Your task to perform on an android device: check data usage Image 0: 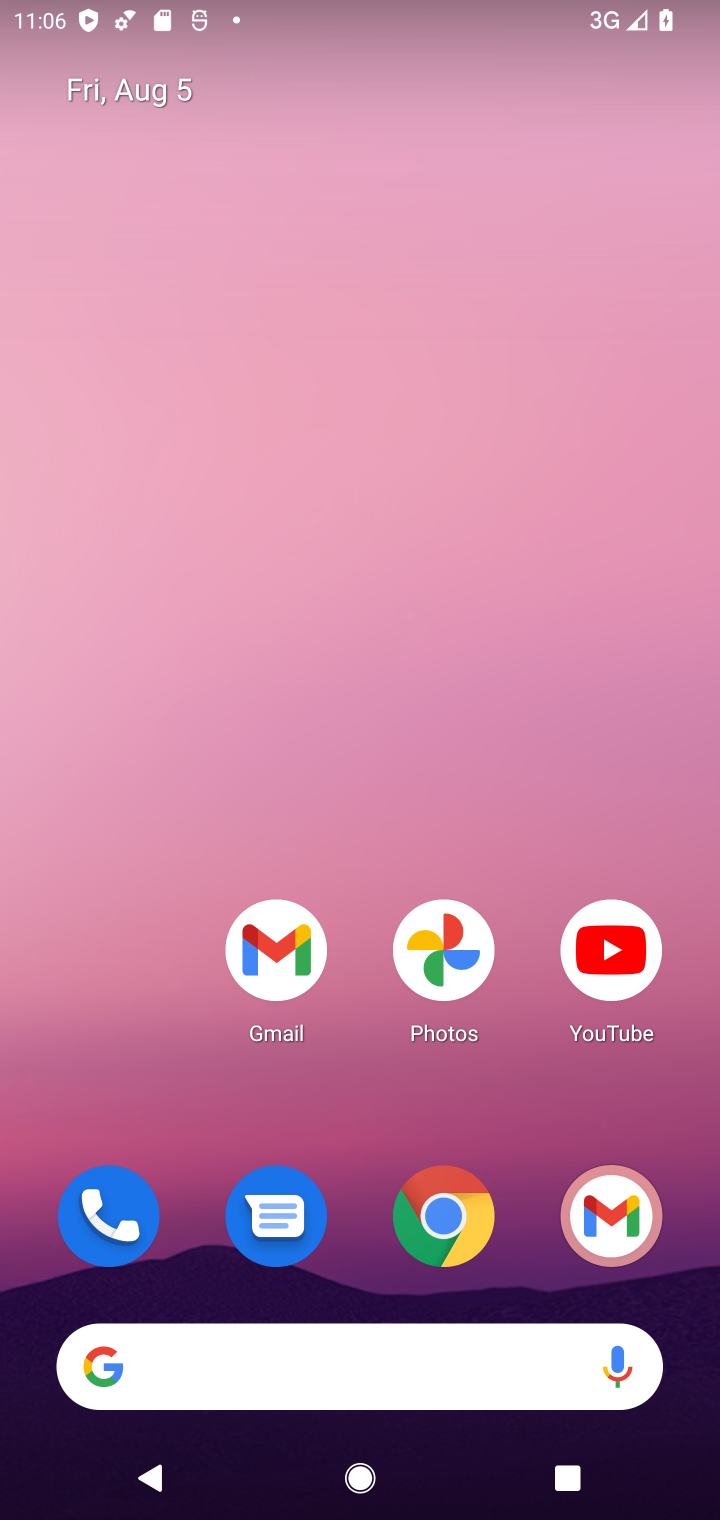
Step 0: drag from (377, 1334) to (267, 118)
Your task to perform on an android device: check data usage Image 1: 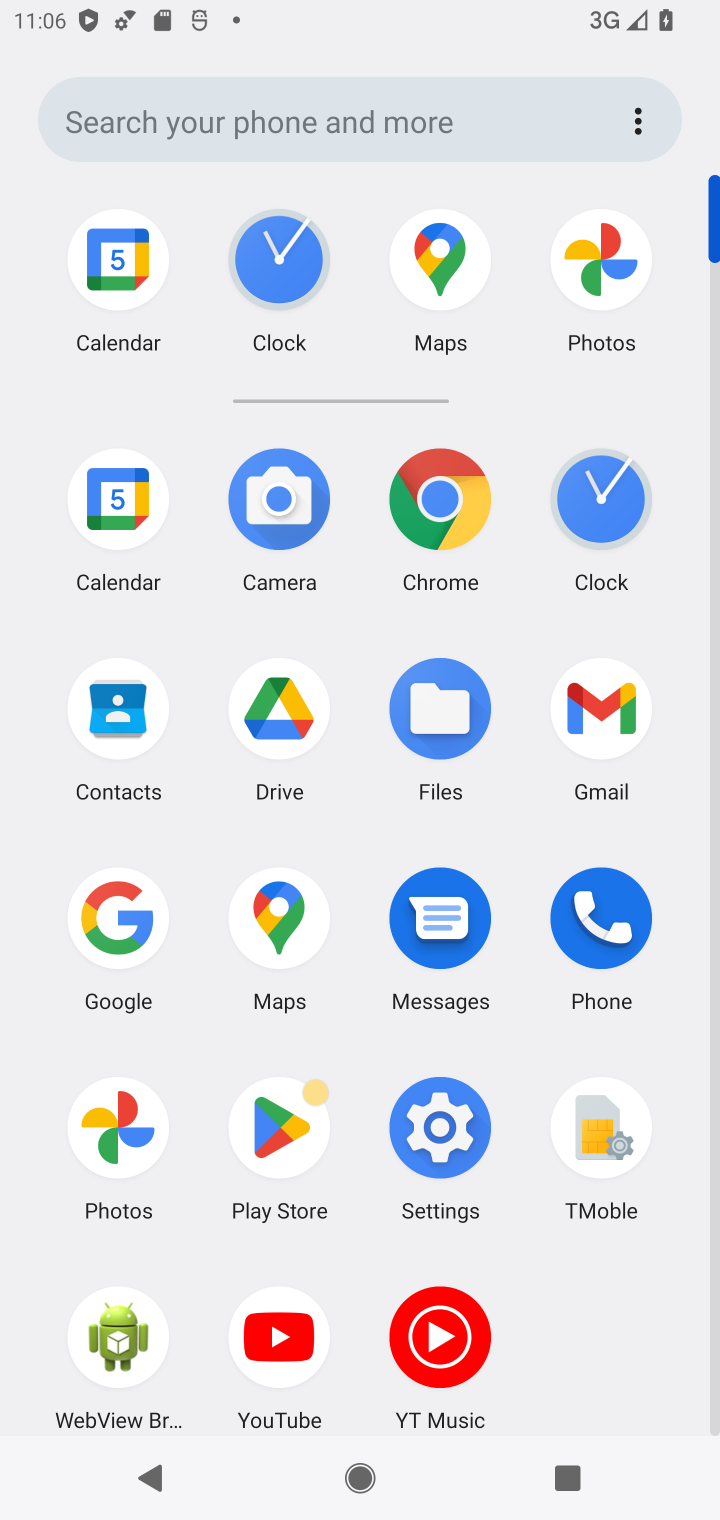
Step 1: click (432, 1140)
Your task to perform on an android device: check data usage Image 2: 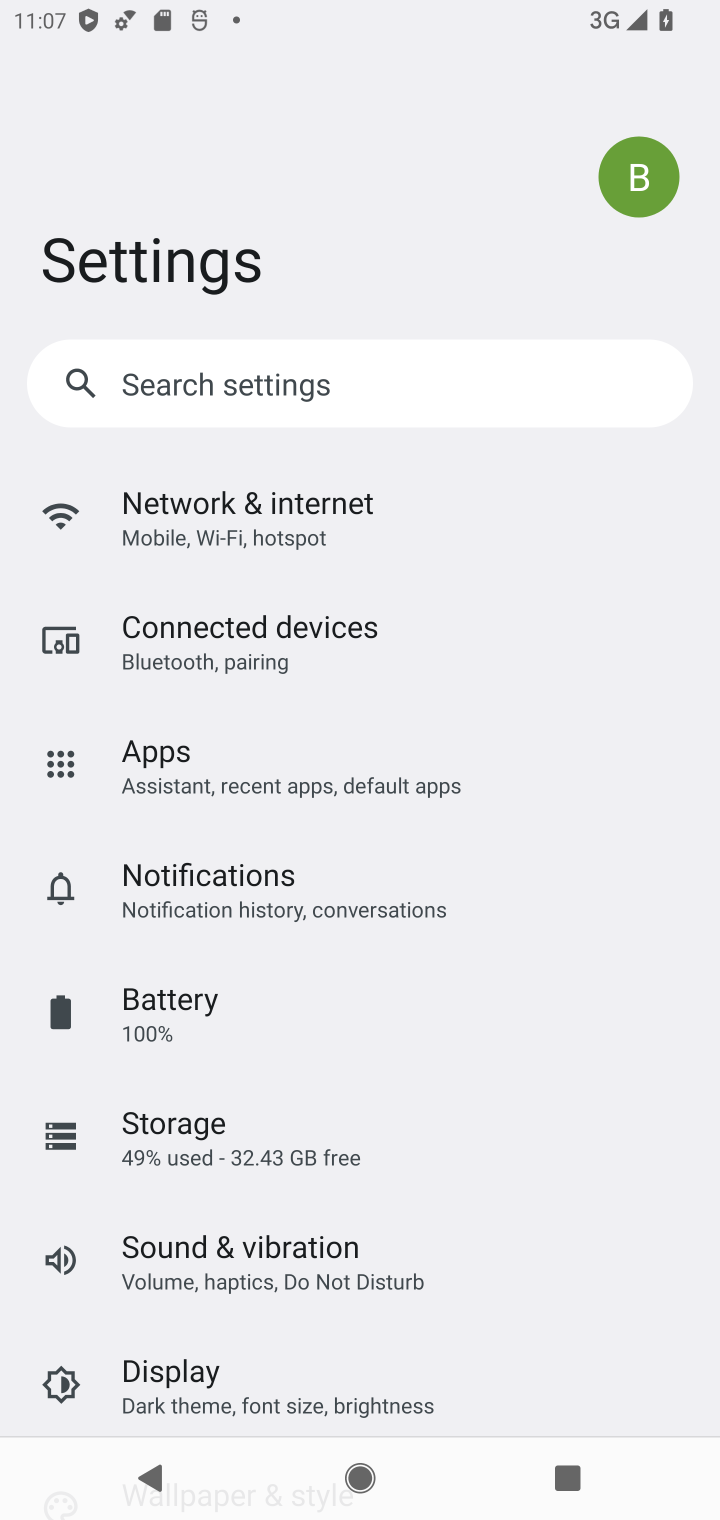
Step 2: click (264, 523)
Your task to perform on an android device: check data usage Image 3: 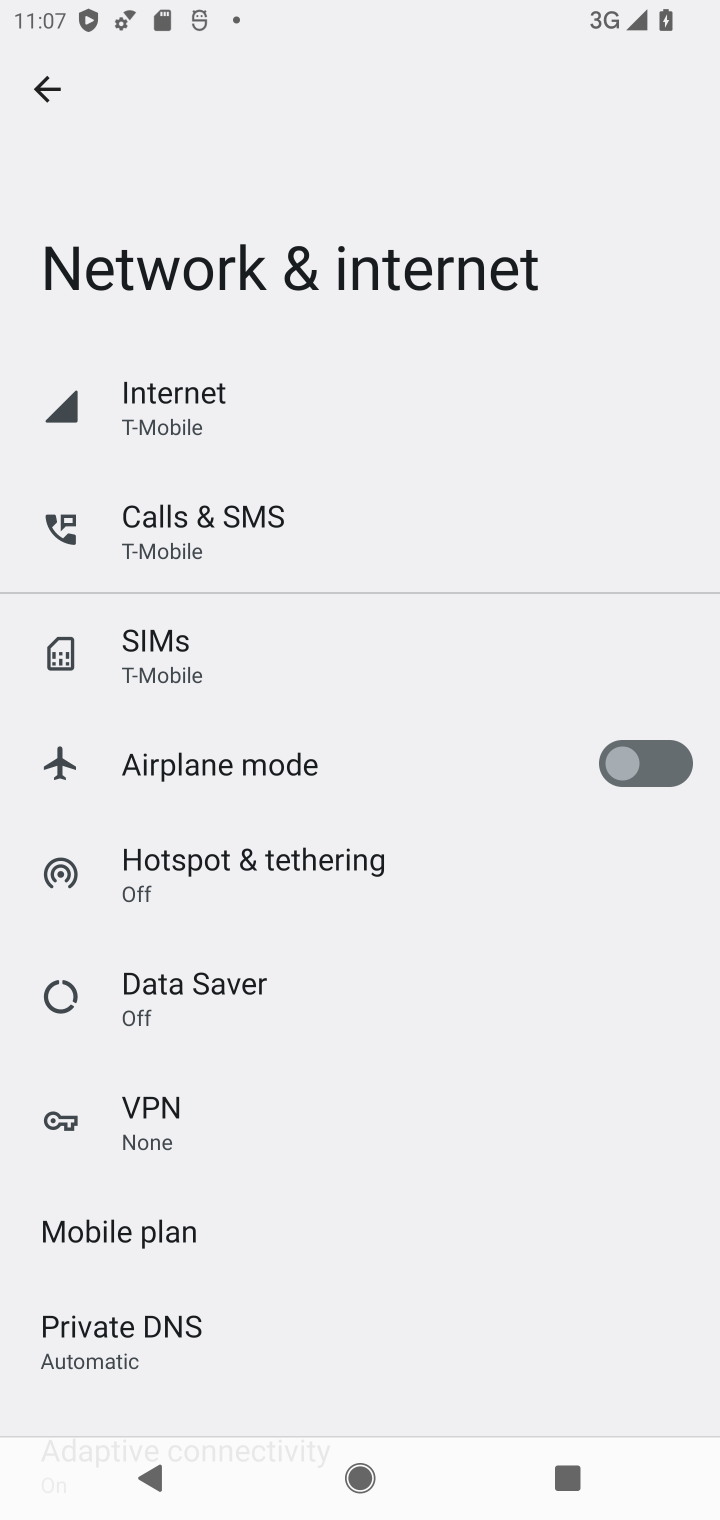
Step 3: click (256, 980)
Your task to perform on an android device: check data usage Image 4: 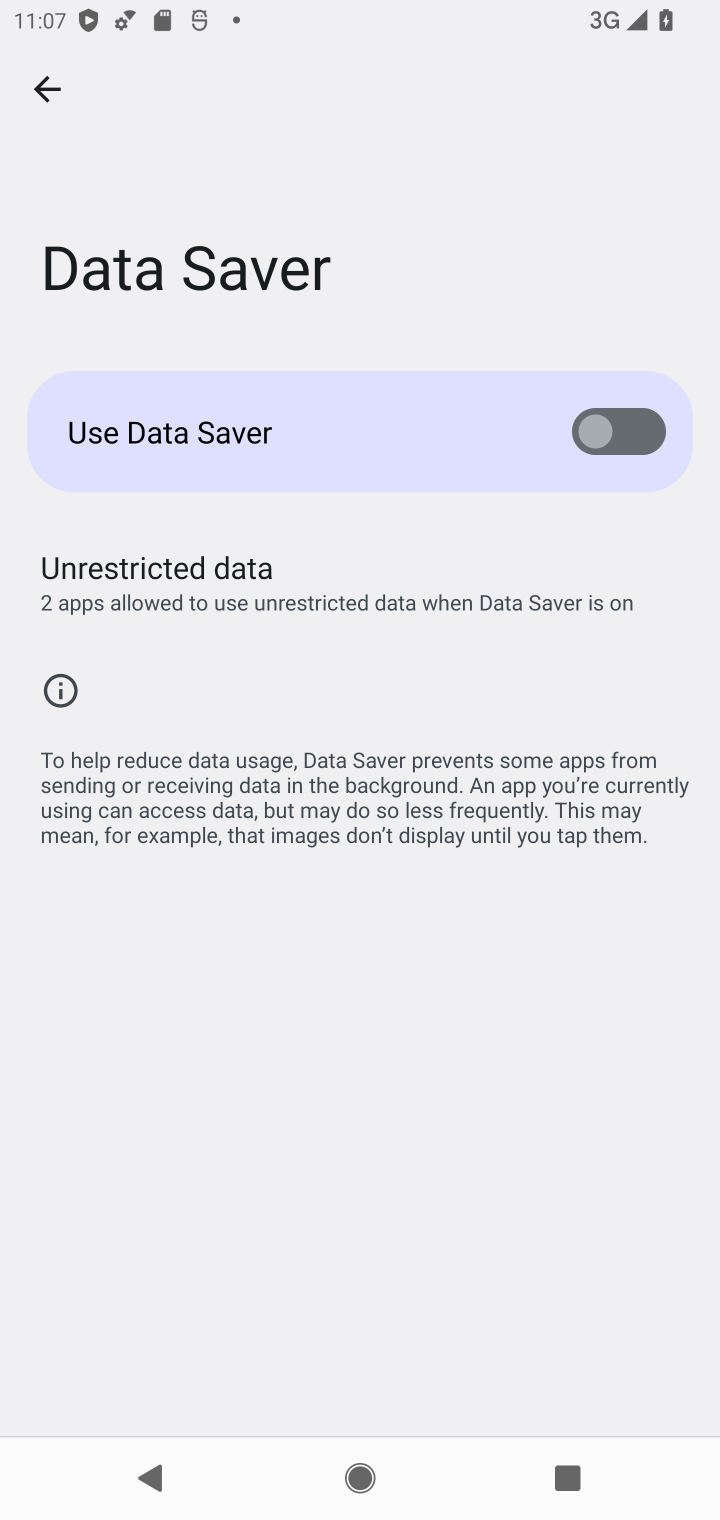
Step 4: task complete